Your task to perform on an android device: move an email to a new category in the gmail app Image 0: 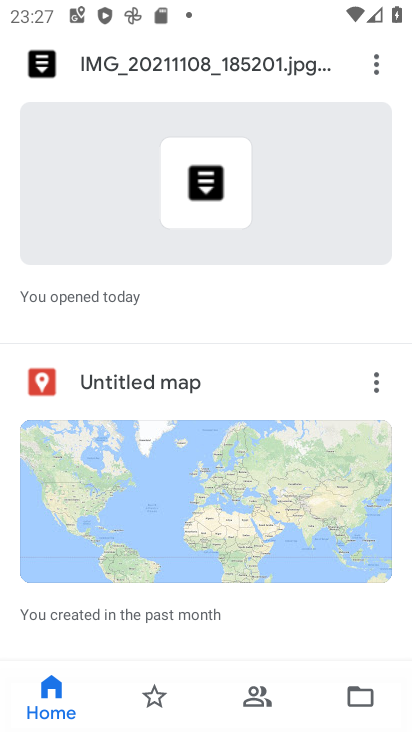
Step 0: press home button
Your task to perform on an android device: move an email to a new category in the gmail app Image 1: 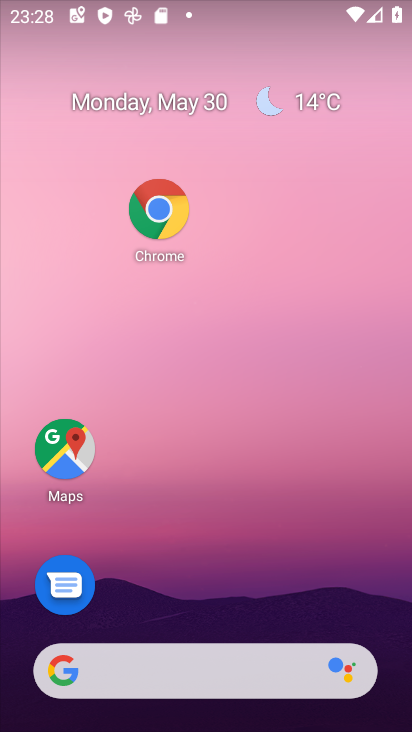
Step 1: drag from (335, 399) to (364, 0)
Your task to perform on an android device: move an email to a new category in the gmail app Image 2: 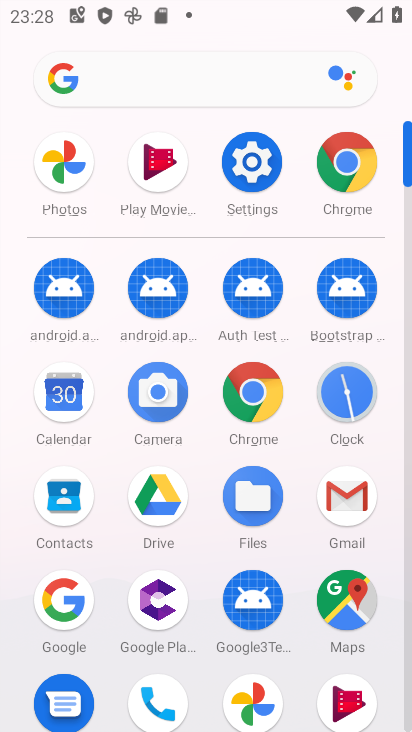
Step 2: click (339, 497)
Your task to perform on an android device: move an email to a new category in the gmail app Image 3: 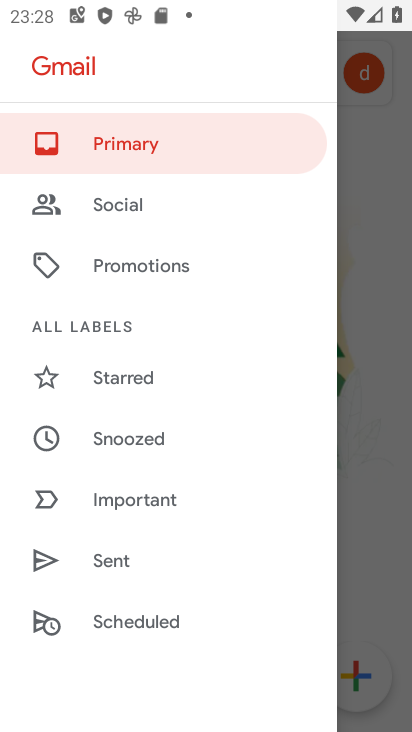
Step 3: drag from (155, 611) to (292, 43)
Your task to perform on an android device: move an email to a new category in the gmail app Image 4: 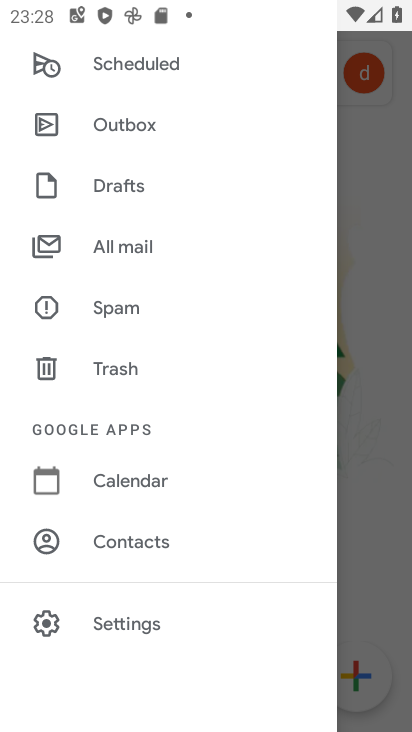
Step 4: click (119, 248)
Your task to perform on an android device: move an email to a new category in the gmail app Image 5: 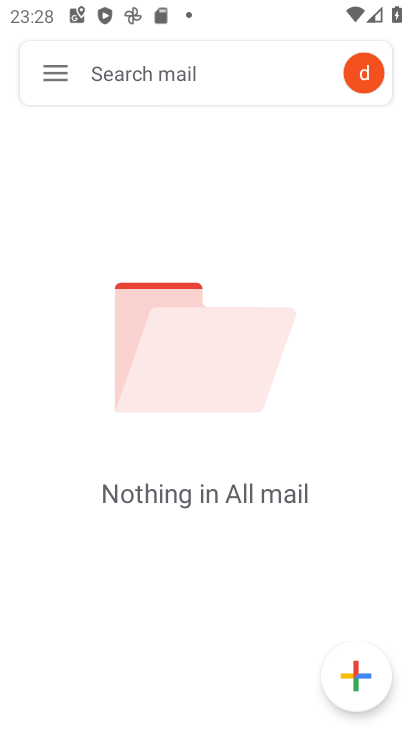
Step 5: task complete